Your task to perform on an android device: Turn on the flashlight Image 0: 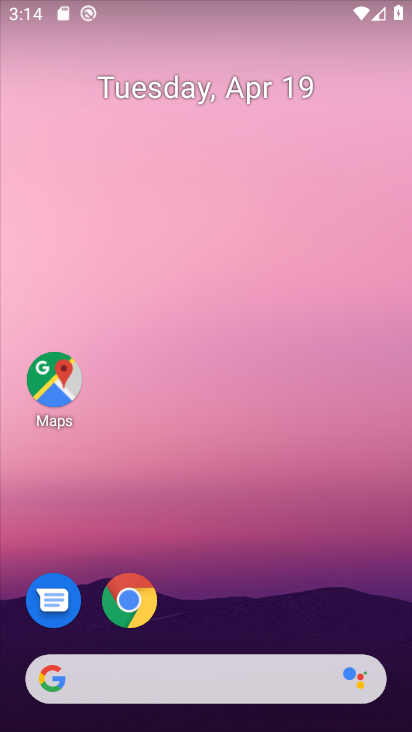
Step 0: drag from (234, 565) to (345, 31)
Your task to perform on an android device: Turn on the flashlight Image 1: 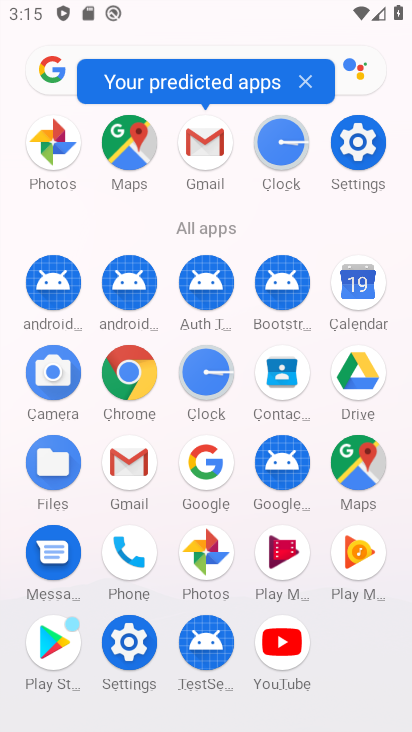
Step 1: click (371, 161)
Your task to perform on an android device: Turn on the flashlight Image 2: 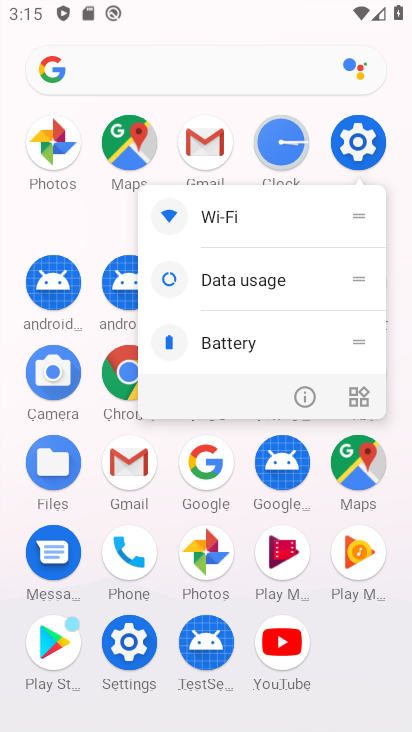
Step 2: click (368, 139)
Your task to perform on an android device: Turn on the flashlight Image 3: 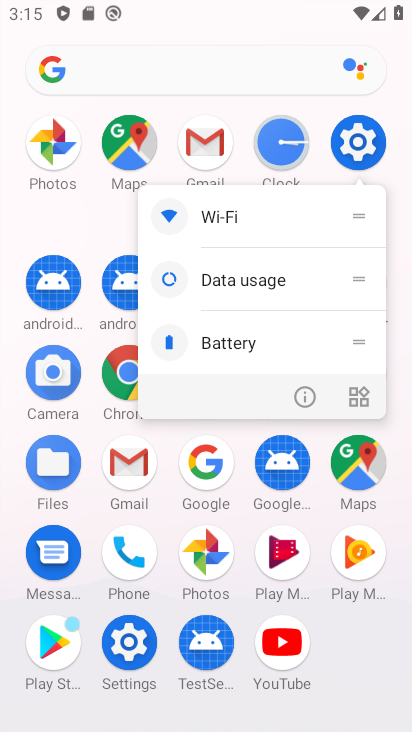
Step 3: click (368, 139)
Your task to perform on an android device: Turn on the flashlight Image 4: 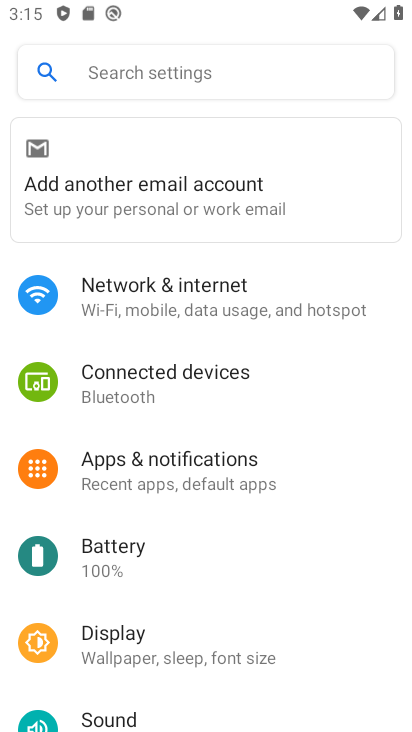
Step 4: click (207, 66)
Your task to perform on an android device: Turn on the flashlight Image 5: 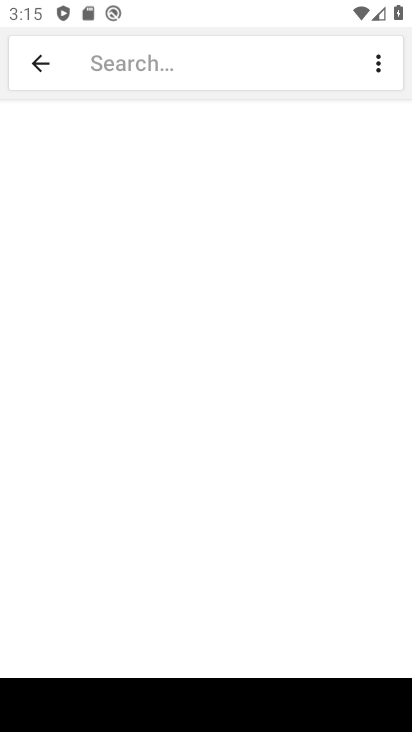
Step 5: type "flashlight"
Your task to perform on an android device: Turn on the flashlight Image 6: 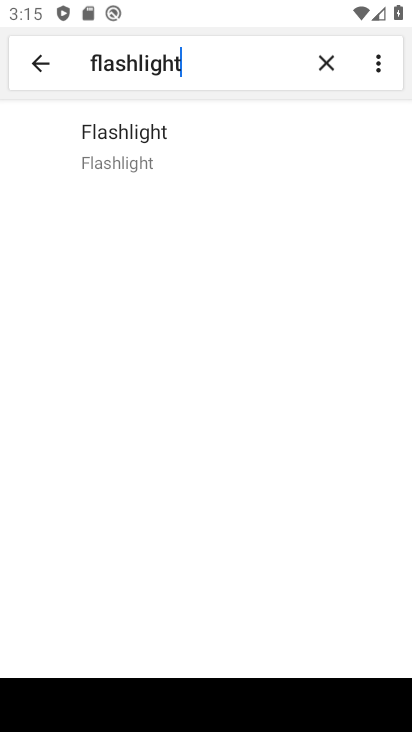
Step 6: click (164, 139)
Your task to perform on an android device: Turn on the flashlight Image 7: 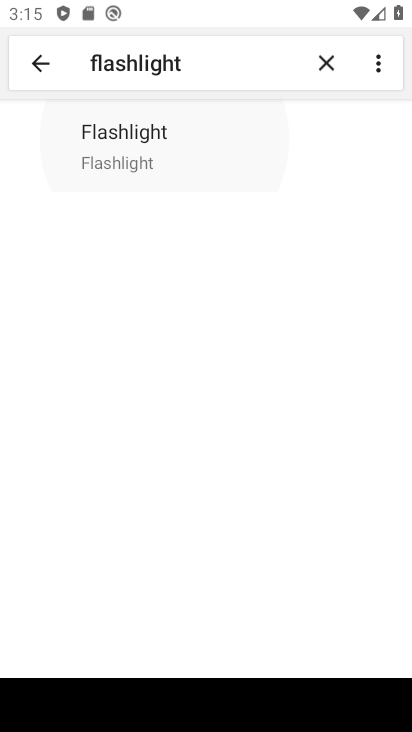
Step 7: click (163, 140)
Your task to perform on an android device: Turn on the flashlight Image 8: 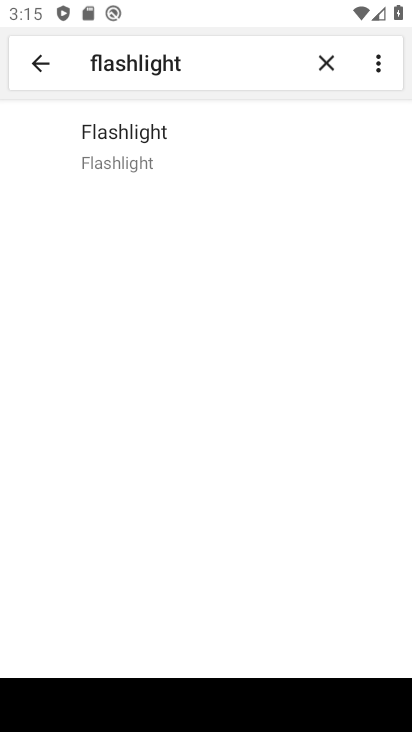
Step 8: task complete